Your task to perform on an android device: Do I have any events this weekend? Image 0: 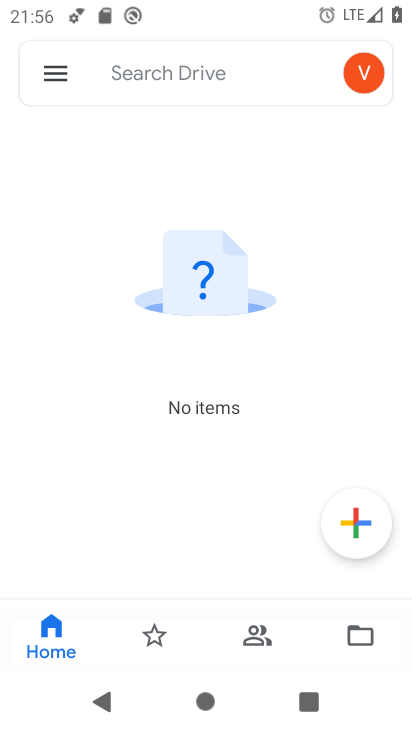
Step 0: press home button
Your task to perform on an android device: Do I have any events this weekend? Image 1: 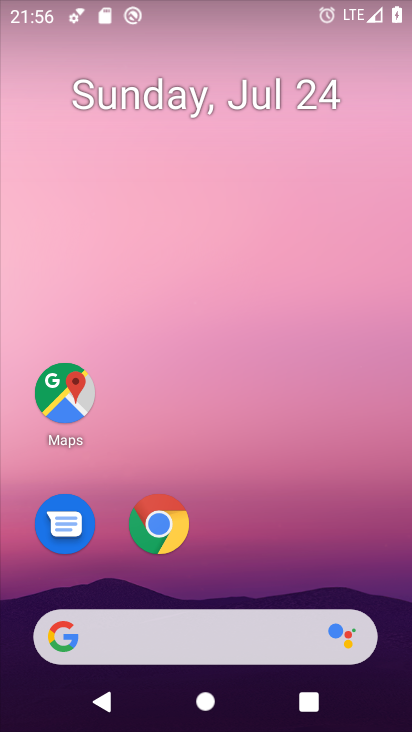
Step 1: drag from (235, 570) to (267, 27)
Your task to perform on an android device: Do I have any events this weekend? Image 2: 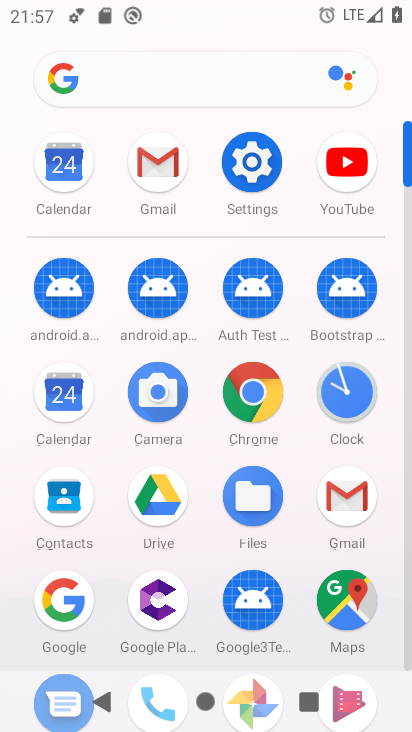
Step 2: click (68, 162)
Your task to perform on an android device: Do I have any events this weekend? Image 3: 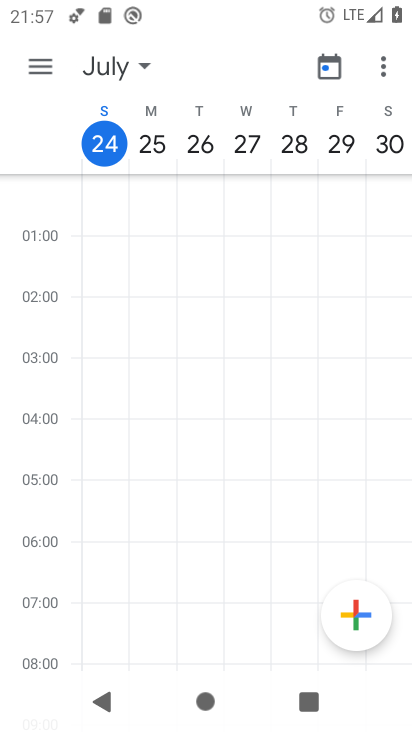
Step 3: task complete